Your task to perform on an android device: Find coffee shops on Maps Image 0: 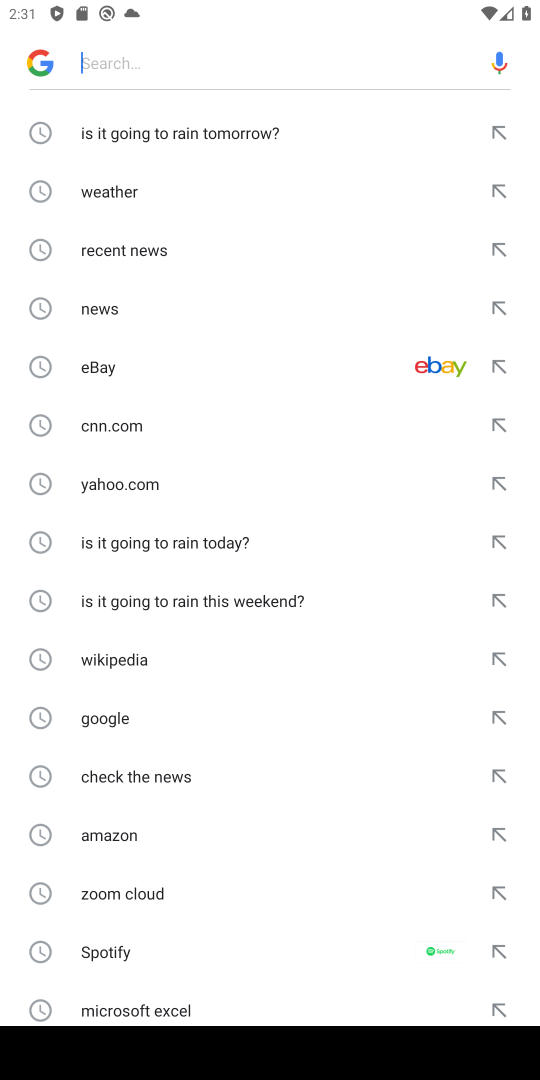
Step 0: press home button
Your task to perform on an android device: Find coffee shops on Maps Image 1: 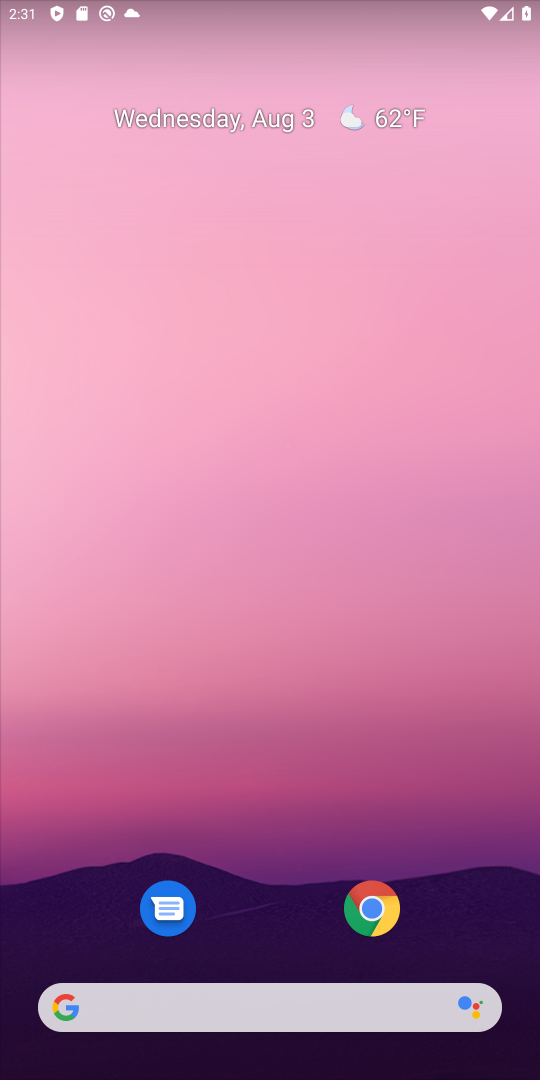
Step 1: drag from (241, 742) to (318, 269)
Your task to perform on an android device: Find coffee shops on Maps Image 2: 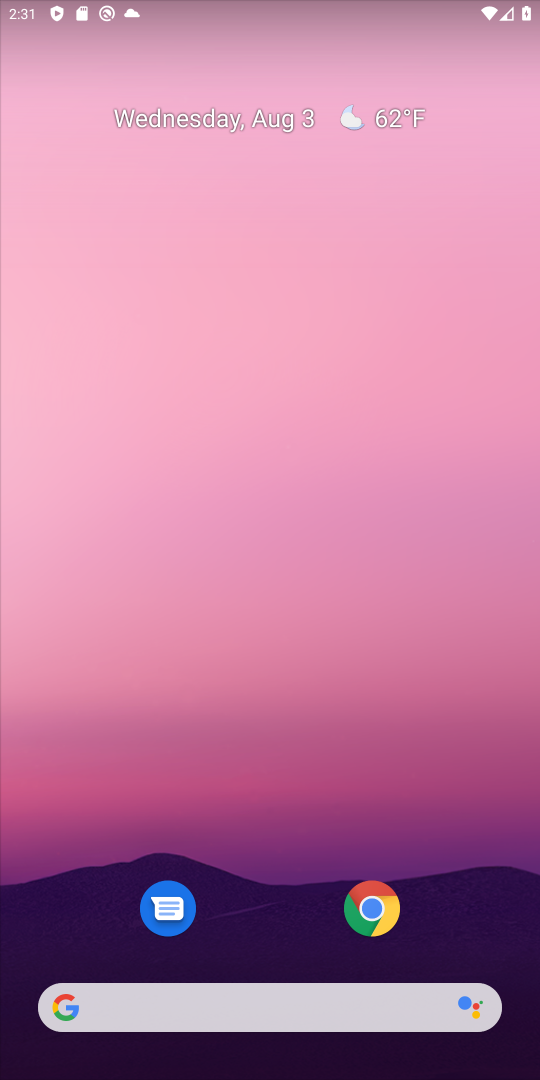
Step 2: drag from (254, 1073) to (353, 209)
Your task to perform on an android device: Find coffee shops on Maps Image 3: 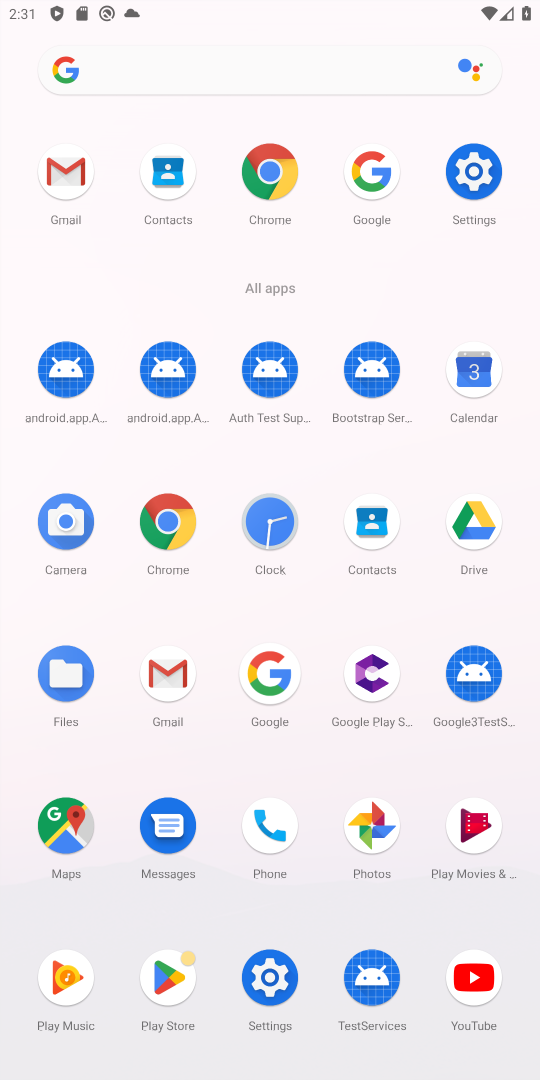
Step 3: click (81, 829)
Your task to perform on an android device: Find coffee shops on Maps Image 4: 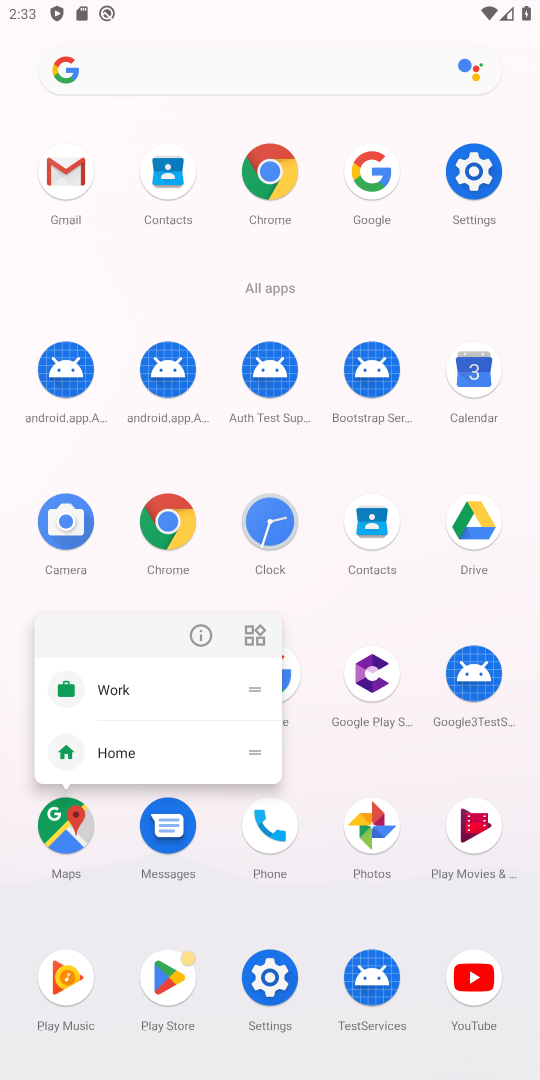
Step 4: click (71, 827)
Your task to perform on an android device: Find coffee shops on Maps Image 5: 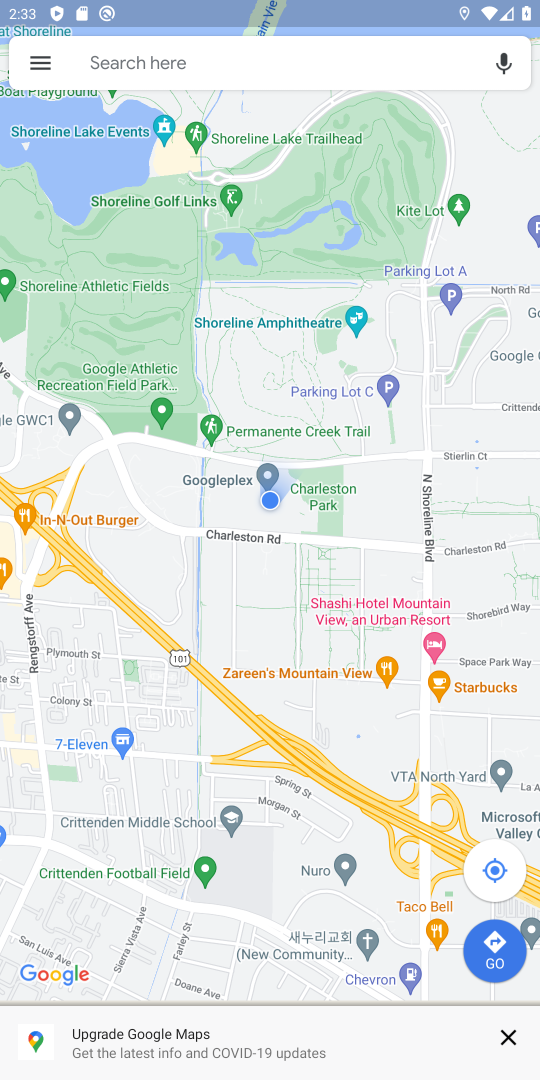
Step 5: click (337, 51)
Your task to perform on an android device: Find coffee shops on Maps Image 6: 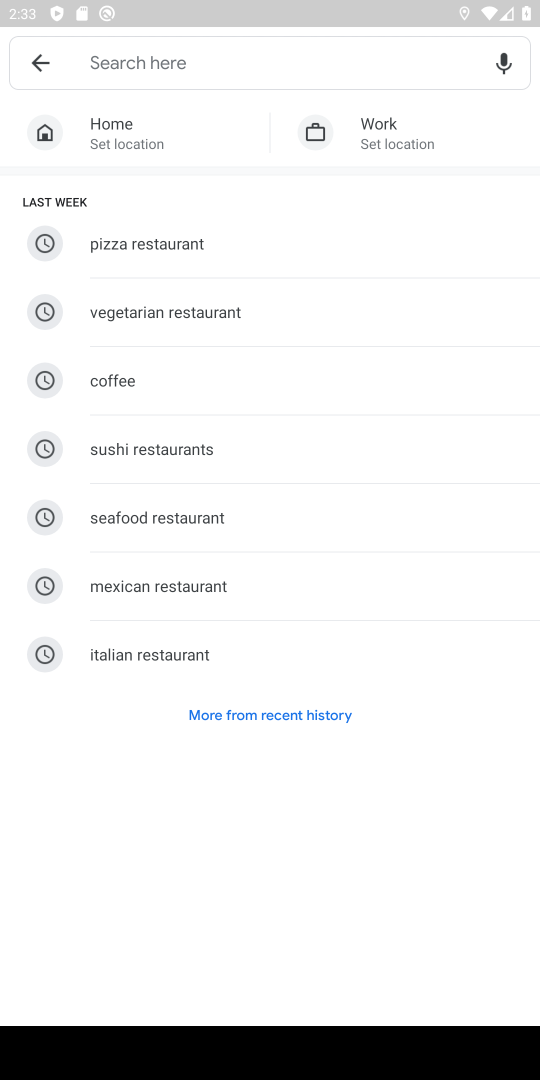
Step 6: type "coffee shoes"
Your task to perform on an android device: Find coffee shops on Maps Image 7: 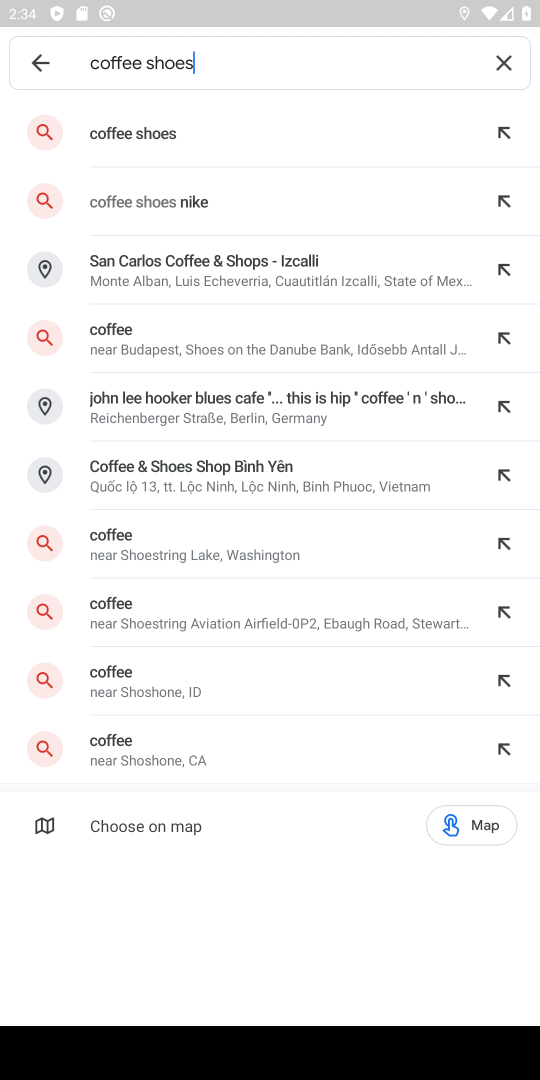
Step 7: click (228, 108)
Your task to perform on an android device: Find coffee shops on Maps Image 8: 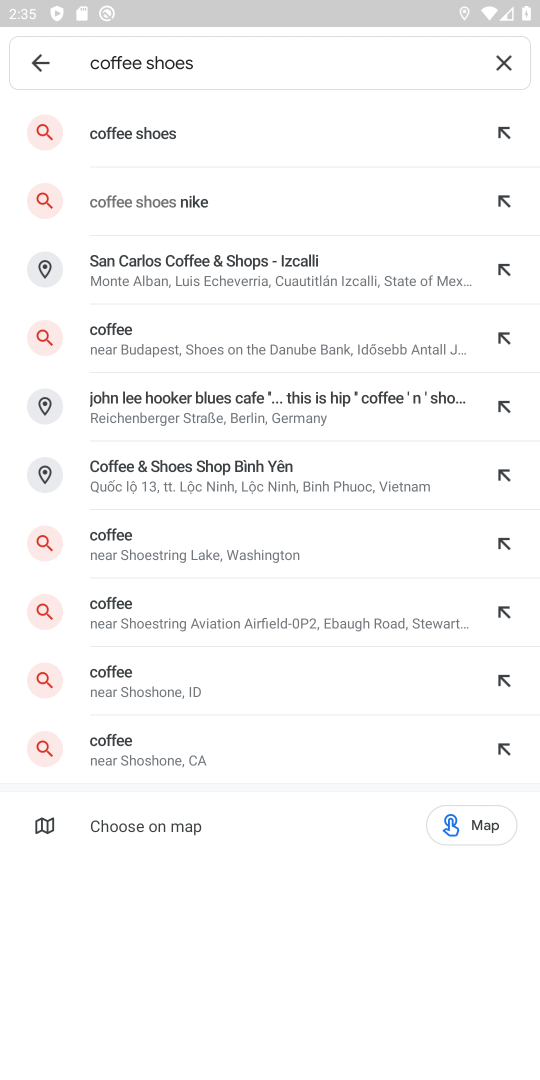
Step 8: click (235, 133)
Your task to perform on an android device: Find coffee shops on Maps Image 9: 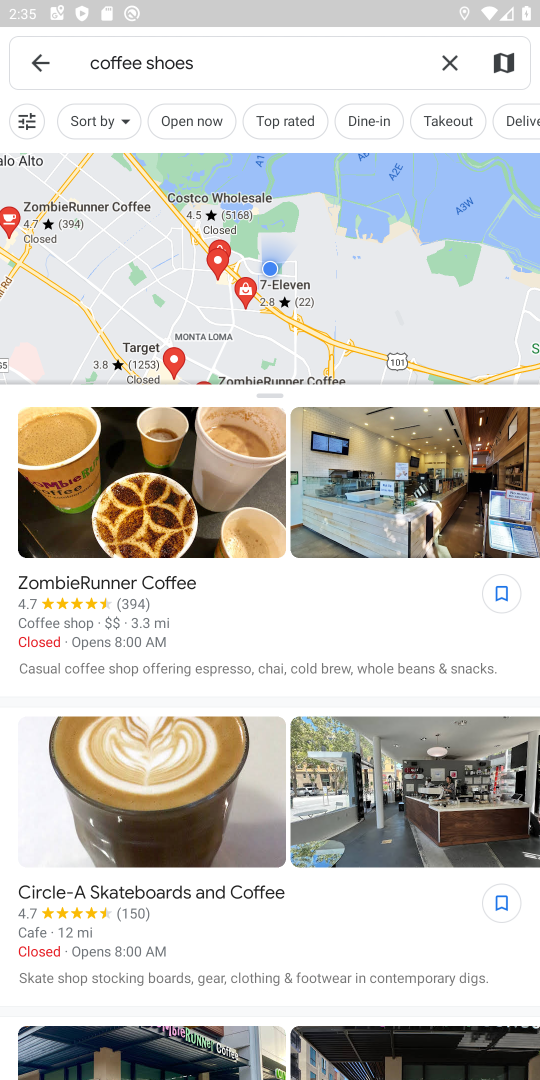
Step 9: task complete